Your task to perform on an android device: Open Yahoo.com Image 0: 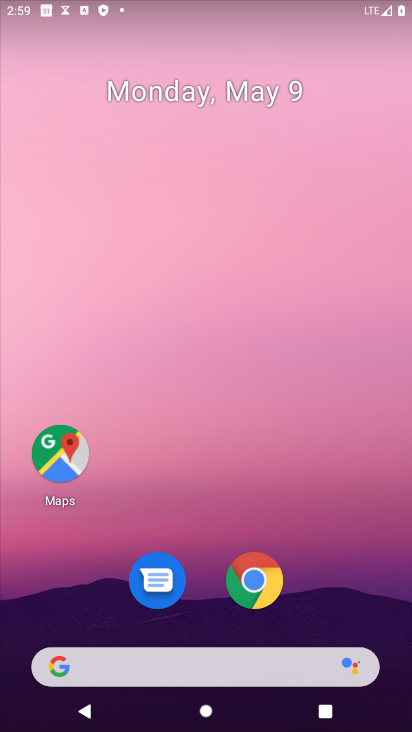
Step 0: click (267, 573)
Your task to perform on an android device: Open Yahoo.com Image 1: 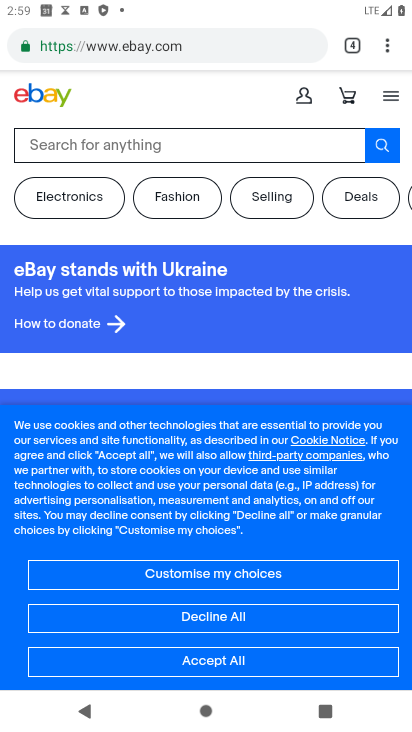
Step 1: click (354, 42)
Your task to perform on an android device: Open Yahoo.com Image 2: 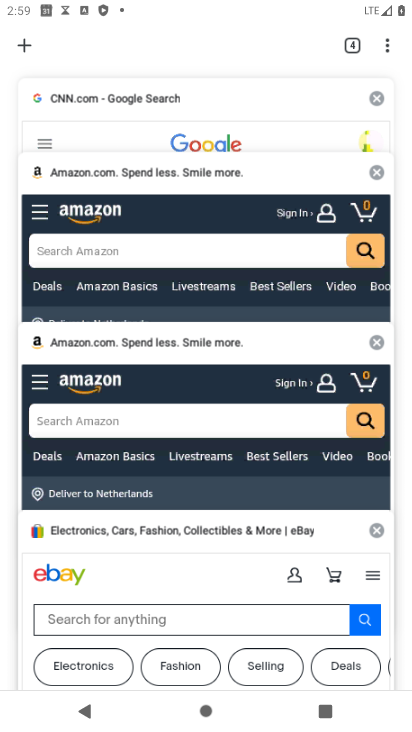
Step 2: click (31, 43)
Your task to perform on an android device: Open Yahoo.com Image 3: 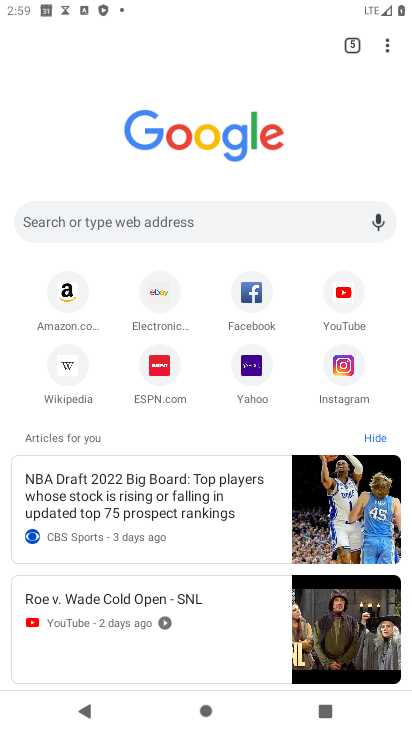
Step 3: click (245, 365)
Your task to perform on an android device: Open Yahoo.com Image 4: 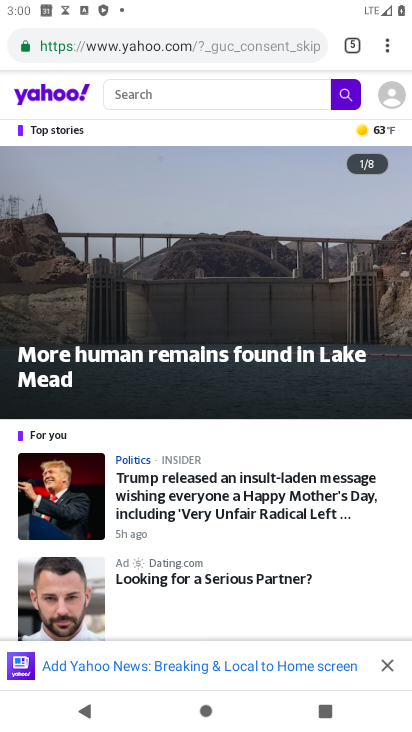
Step 4: task complete